Your task to perform on an android device: install app "Google Chrome" Image 0: 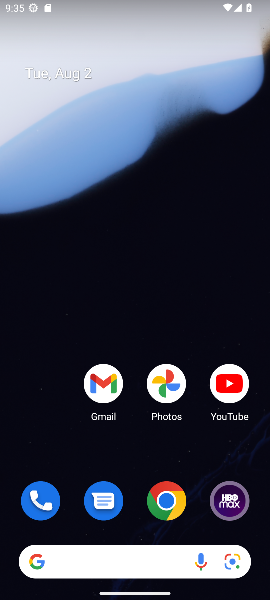
Step 0: drag from (133, 528) to (150, 87)
Your task to perform on an android device: install app "Google Chrome" Image 1: 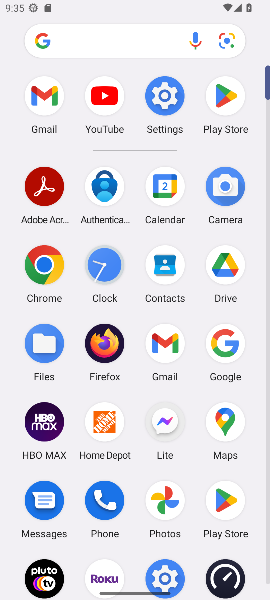
Step 1: click (229, 69)
Your task to perform on an android device: install app "Google Chrome" Image 2: 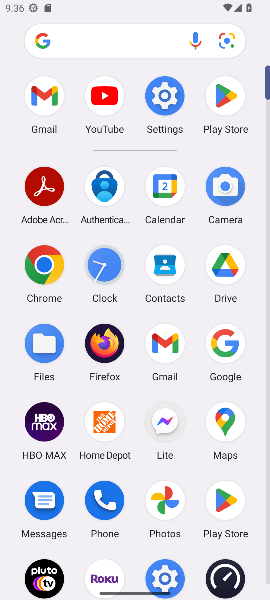
Step 2: click (225, 95)
Your task to perform on an android device: install app "Google Chrome" Image 3: 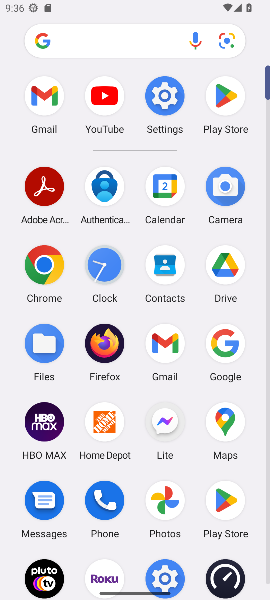
Step 3: click (225, 95)
Your task to perform on an android device: install app "Google Chrome" Image 4: 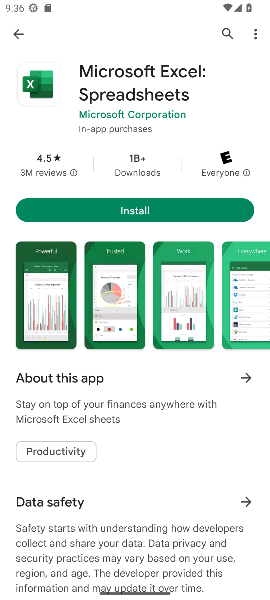
Step 4: drag from (192, 527) to (248, 163)
Your task to perform on an android device: install app "Google Chrome" Image 5: 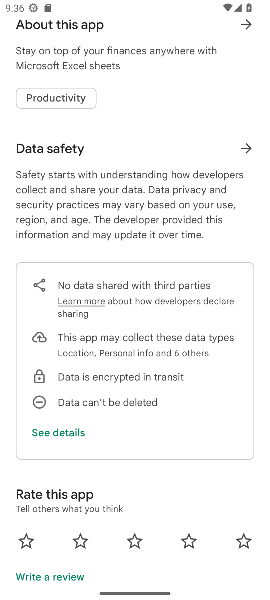
Step 5: drag from (192, 138) to (173, 596)
Your task to perform on an android device: install app "Google Chrome" Image 6: 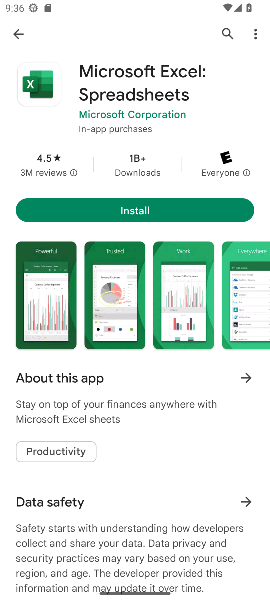
Step 6: drag from (167, 144) to (158, 482)
Your task to perform on an android device: install app "Google Chrome" Image 7: 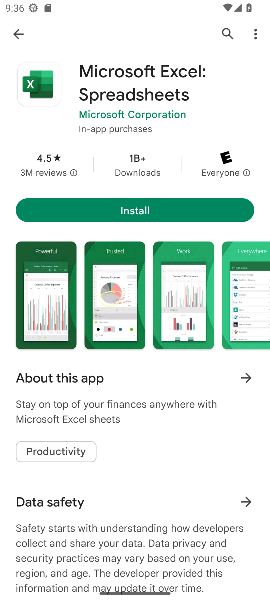
Step 7: drag from (120, 84) to (175, 457)
Your task to perform on an android device: install app "Google Chrome" Image 8: 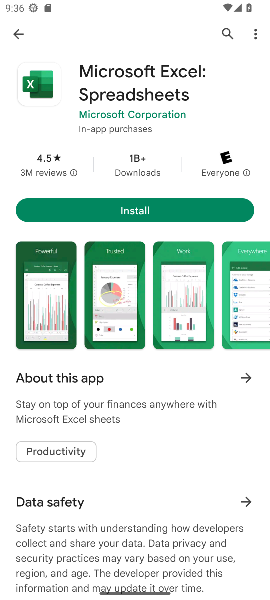
Step 8: click (223, 31)
Your task to perform on an android device: install app "Google Chrome" Image 9: 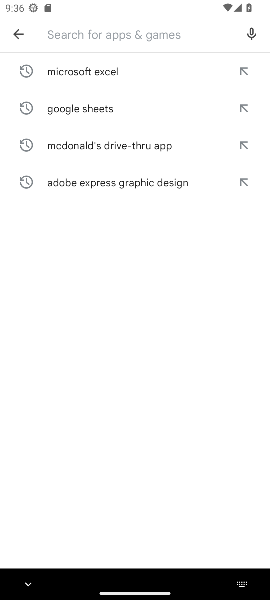
Step 9: type "Google Chrome"
Your task to perform on an android device: install app "Google Chrome" Image 10: 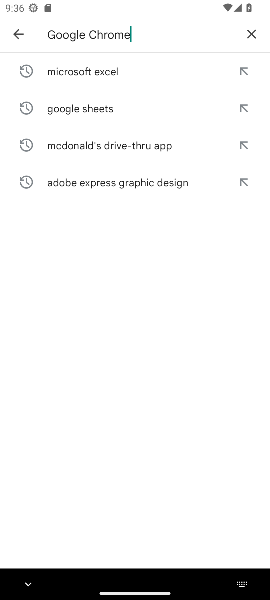
Step 10: type ""
Your task to perform on an android device: install app "Google Chrome" Image 11: 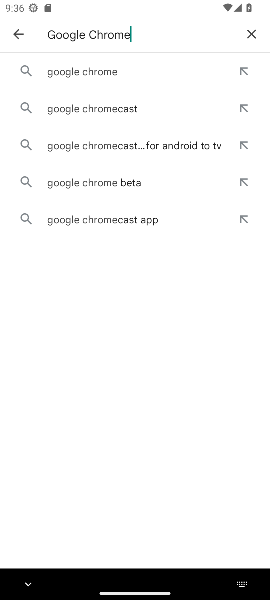
Step 11: click (74, 68)
Your task to perform on an android device: install app "Google Chrome" Image 12: 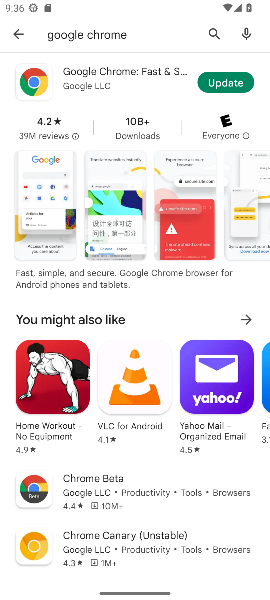
Step 12: click (75, 75)
Your task to perform on an android device: install app "Google Chrome" Image 13: 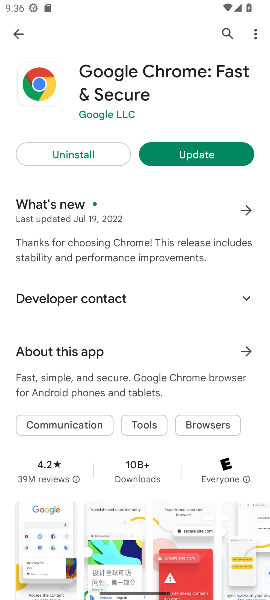
Step 13: task complete